Your task to perform on an android device: Search for Mexican restaurants on Maps Image 0: 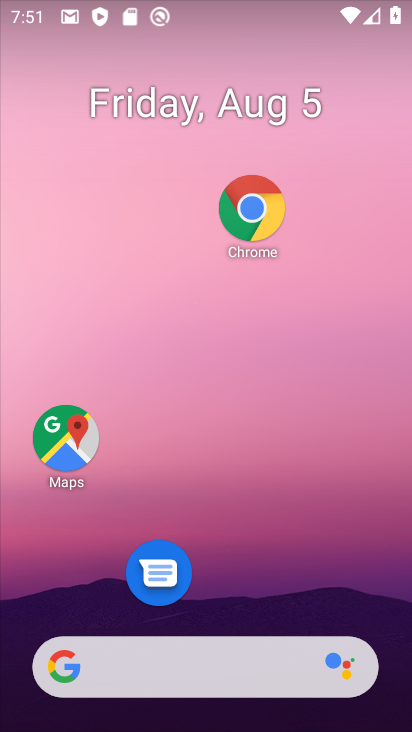
Step 0: click (148, 394)
Your task to perform on an android device: Search for Mexican restaurants on Maps Image 1: 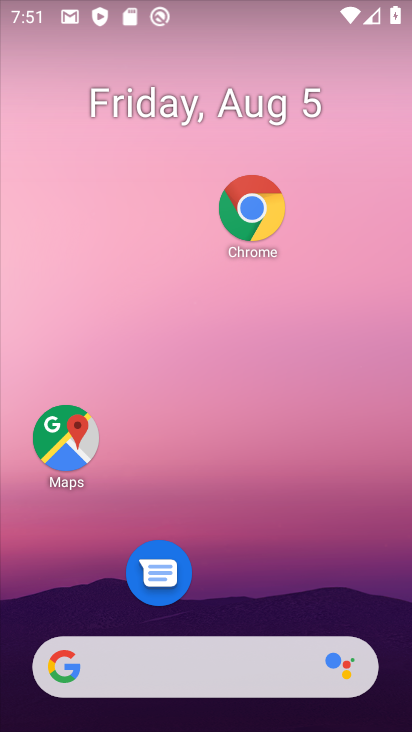
Step 1: drag from (271, 623) to (145, 11)
Your task to perform on an android device: Search for Mexican restaurants on Maps Image 2: 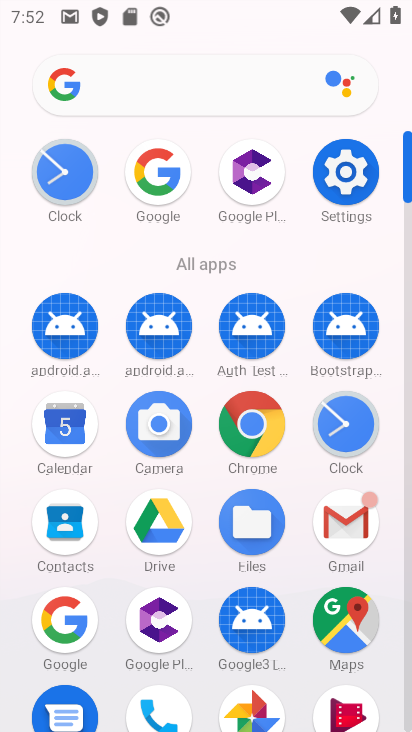
Step 2: click (355, 636)
Your task to perform on an android device: Search for Mexican restaurants on Maps Image 3: 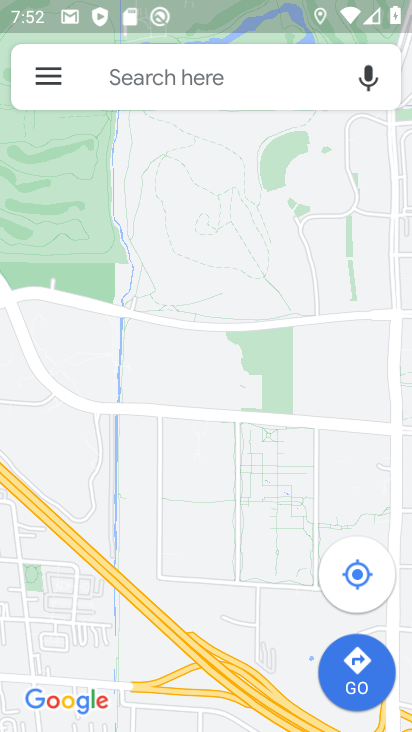
Step 3: click (146, 67)
Your task to perform on an android device: Search for Mexican restaurants on Maps Image 4: 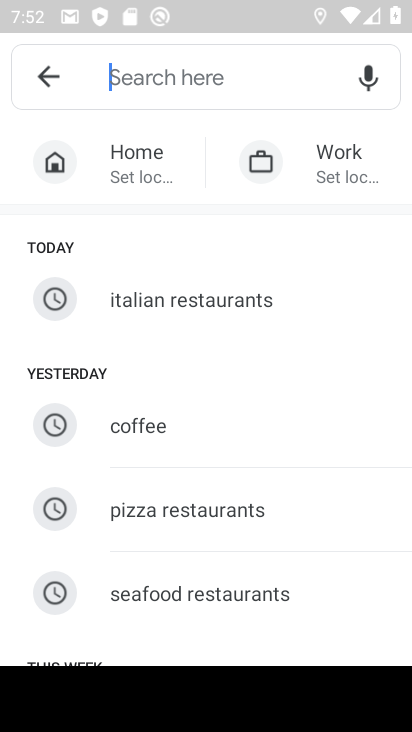
Step 4: drag from (216, 608) to (166, 187)
Your task to perform on an android device: Search for Mexican restaurants on Maps Image 5: 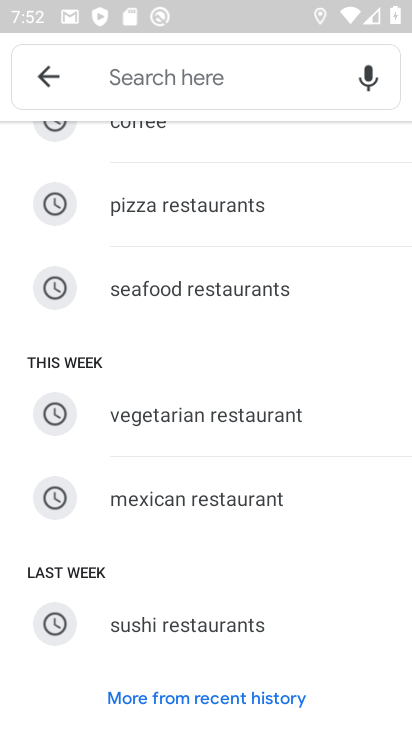
Step 5: click (239, 510)
Your task to perform on an android device: Search for Mexican restaurants on Maps Image 6: 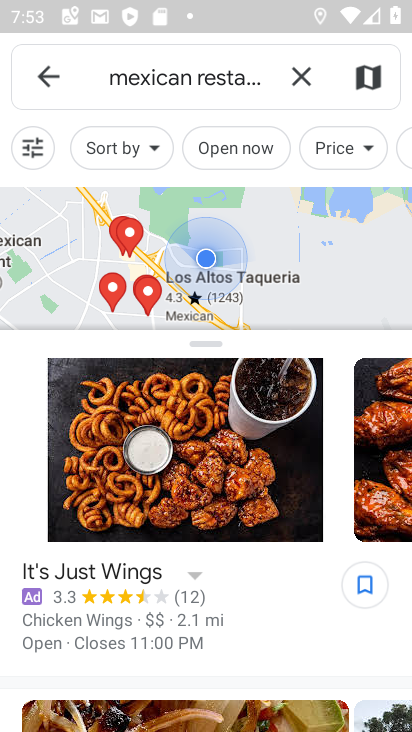
Step 6: task complete